Your task to perform on an android device: Open accessibility settings Image 0: 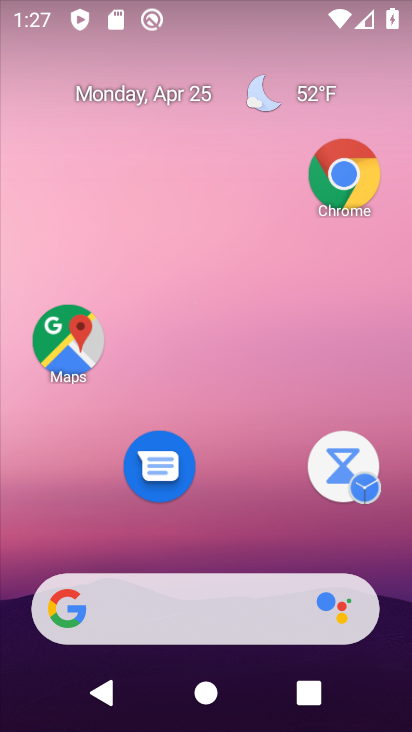
Step 0: drag from (237, 547) to (307, 88)
Your task to perform on an android device: Open accessibility settings Image 1: 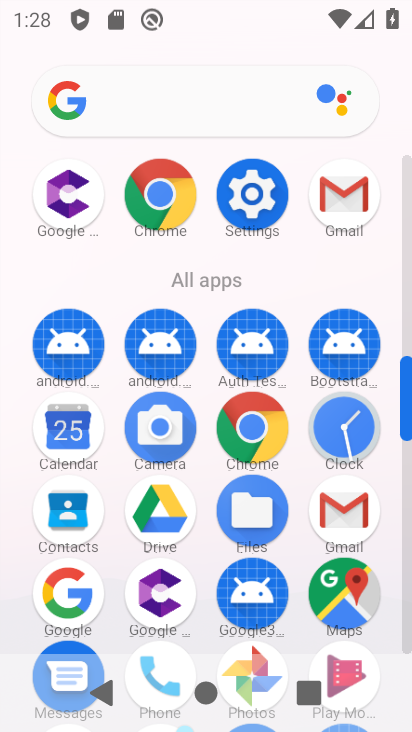
Step 1: click (259, 177)
Your task to perform on an android device: Open accessibility settings Image 2: 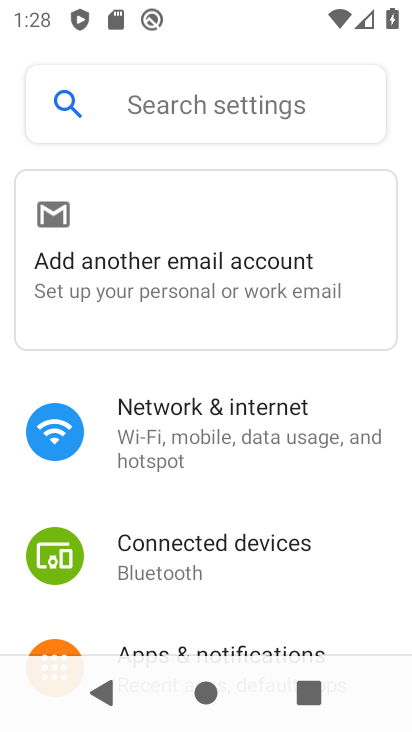
Step 2: drag from (44, 569) to (82, 301)
Your task to perform on an android device: Open accessibility settings Image 3: 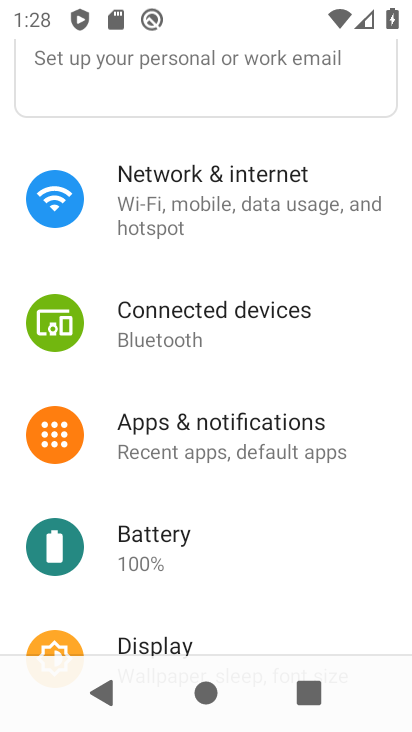
Step 3: drag from (178, 582) to (203, 308)
Your task to perform on an android device: Open accessibility settings Image 4: 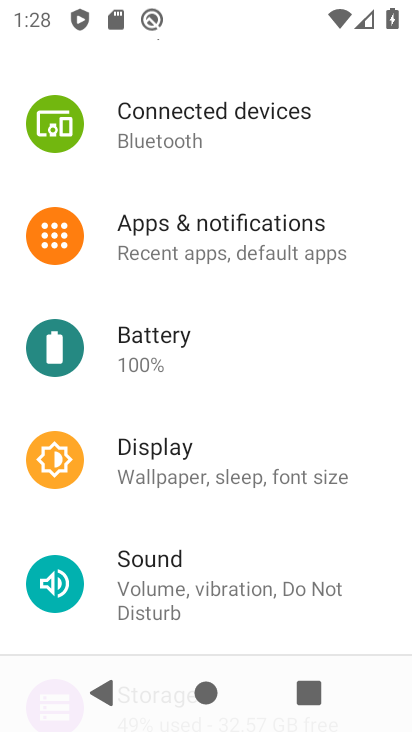
Step 4: drag from (223, 571) to (245, 295)
Your task to perform on an android device: Open accessibility settings Image 5: 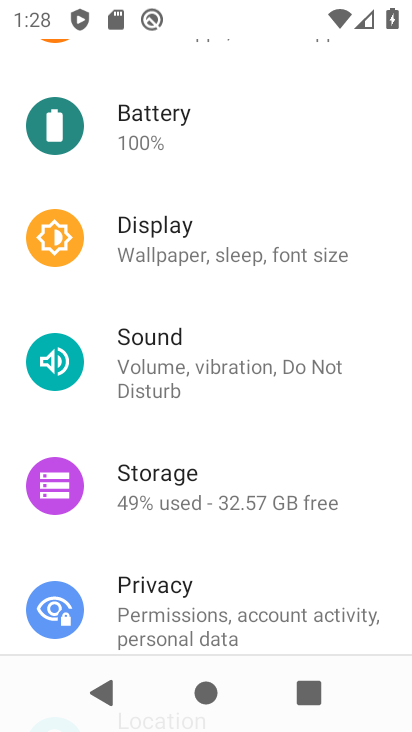
Step 5: drag from (204, 532) to (194, 326)
Your task to perform on an android device: Open accessibility settings Image 6: 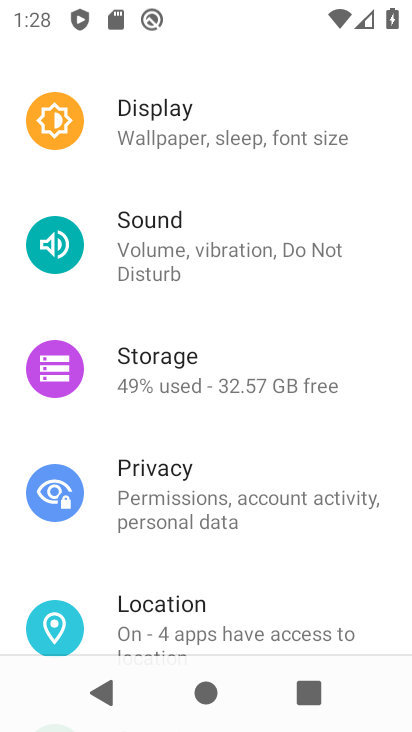
Step 6: drag from (151, 501) to (174, 286)
Your task to perform on an android device: Open accessibility settings Image 7: 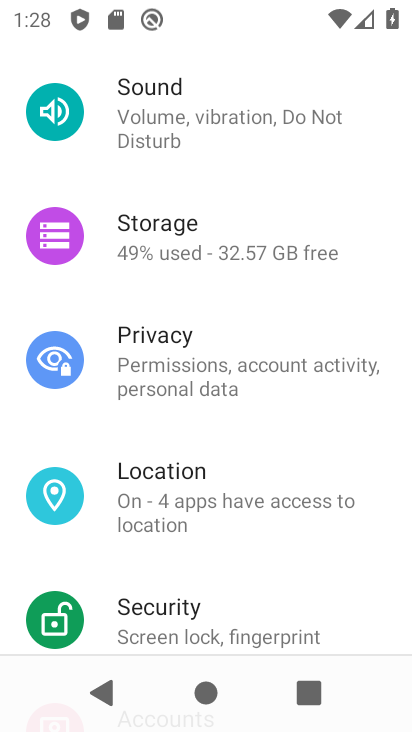
Step 7: drag from (162, 547) to (192, 262)
Your task to perform on an android device: Open accessibility settings Image 8: 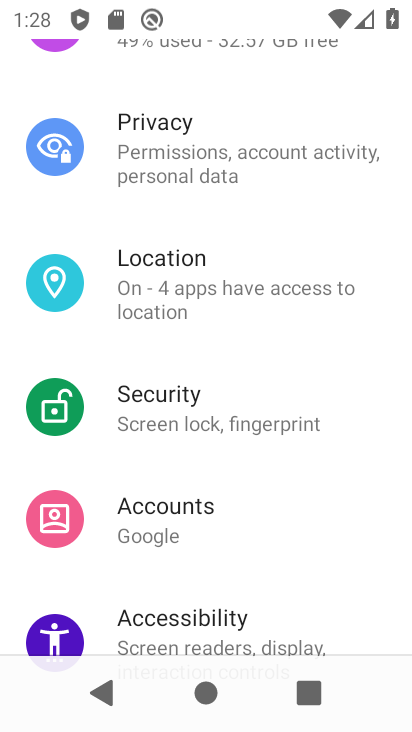
Step 8: click (232, 623)
Your task to perform on an android device: Open accessibility settings Image 9: 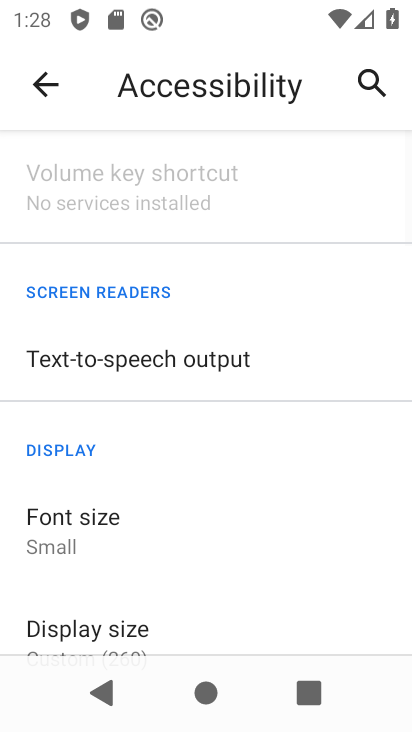
Step 9: task complete